Your task to perform on an android device: delete browsing data in the chrome app Image 0: 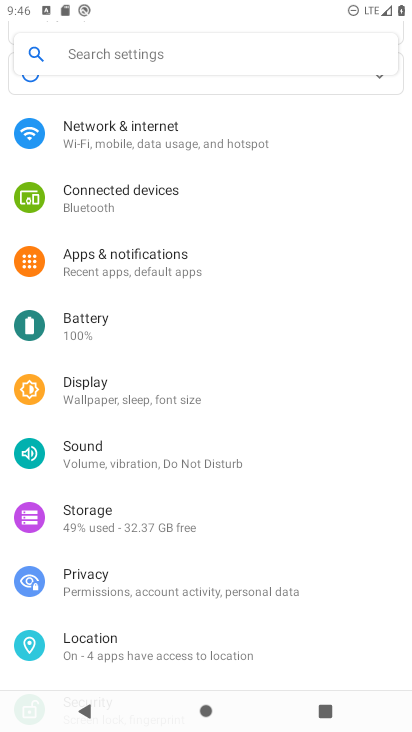
Step 0: press home button
Your task to perform on an android device: delete browsing data in the chrome app Image 1: 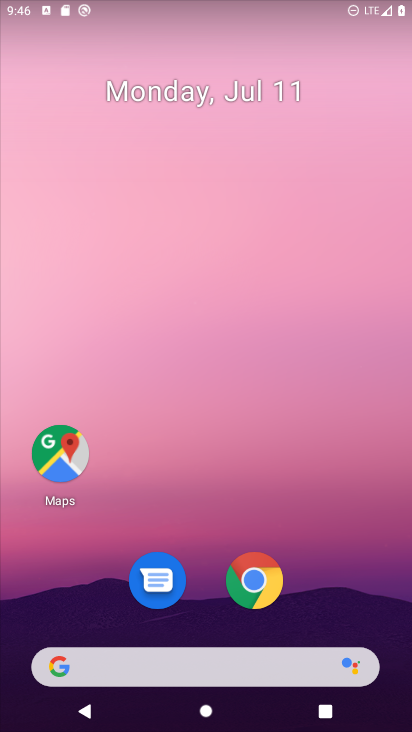
Step 1: click (261, 588)
Your task to perform on an android device: delete browsing data in the chrome app Image 2: 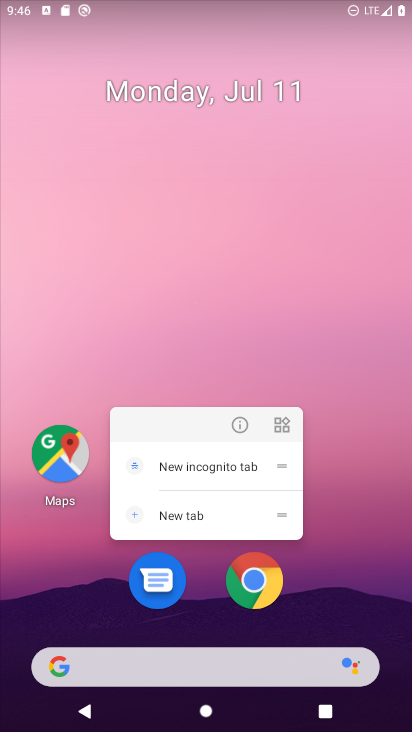
Step 2: click (259, 573)
Your task to perform on an android device: delete browsing data in the chrome app Image 3: 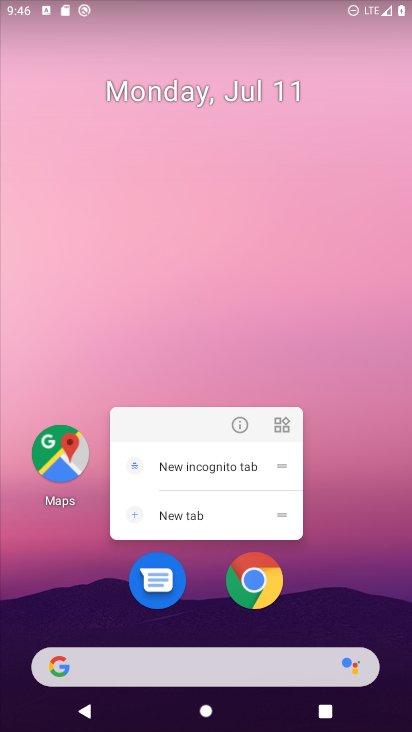
Step 3: click (259, 573)
Your task to perform on an android device: delete browsing data in the chrome app Image 4: 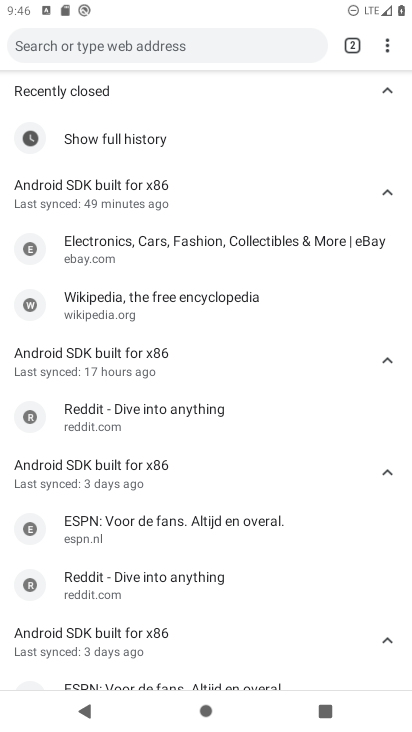
Step 4: click (387, 44)
Your task to perform on an android device: delete browsing data in the chrome app Image 5: 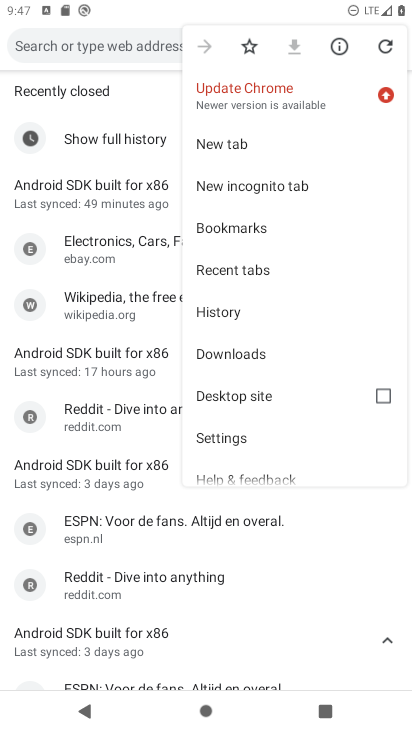
Step 5: click (226, 305)
Your task to perform on an android device: delete browsing data in the chrome app Image 6: 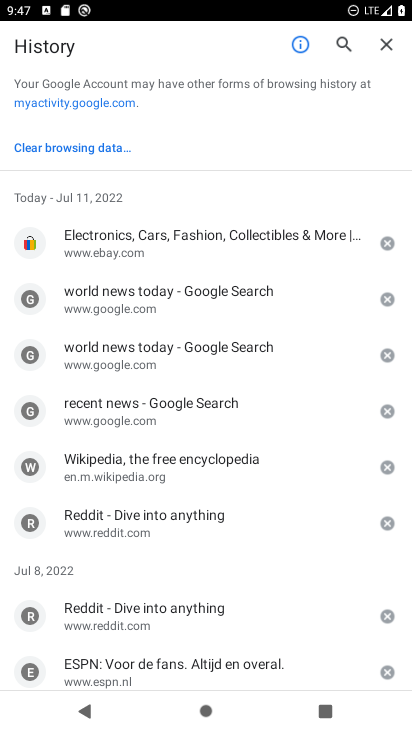
Step 6: click (103, 142)
Your task to perform on an android device: delete browsing data in the chrome app Image 7: 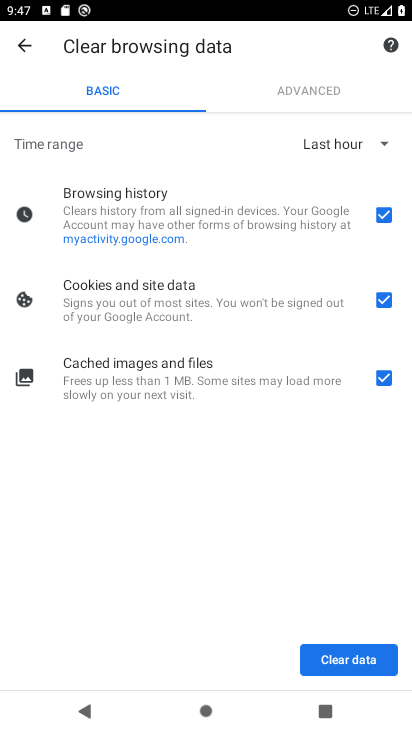
Step 7: click (335, 656)
Your task to perform on an android device: delete browsing data in the chrome app Image 8: 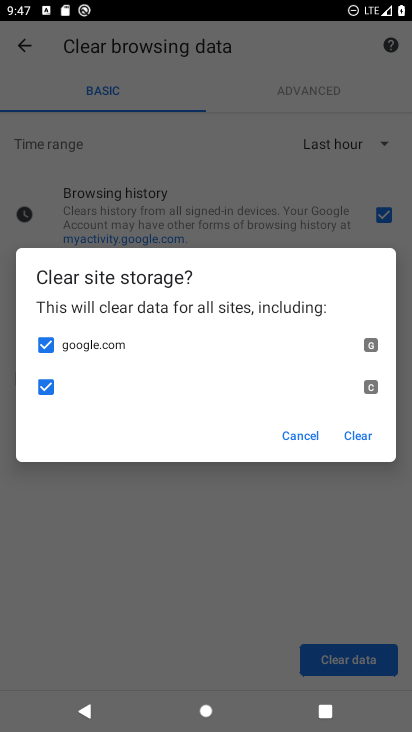
Step 8: click (365, 432)
Your task to perform on an android device: delete browsing data in the chrome app Image 9: 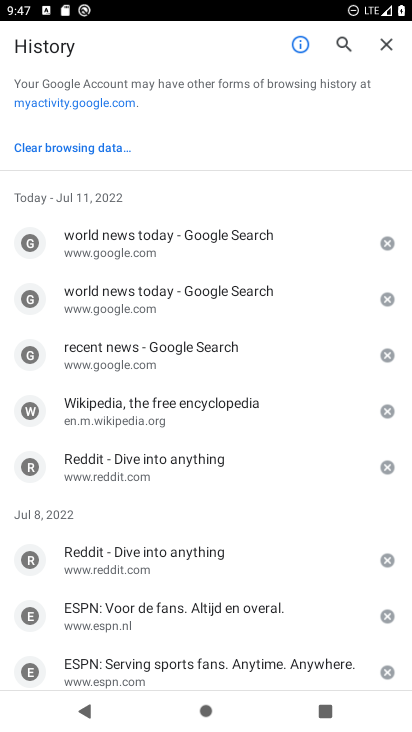
Step 9: click (93, 147)
Your task to perform on an android device: delete browsing data in the chrome app Image 10: 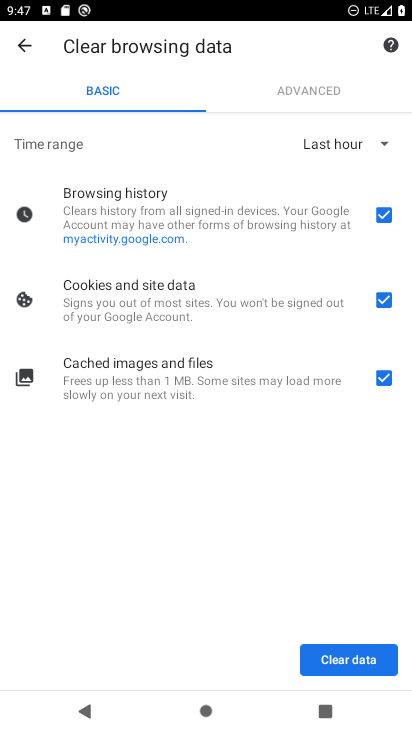
Step 10: click (387, 140)
Your task to perform on an android device: delete browsing data in the chrome app Image 11: 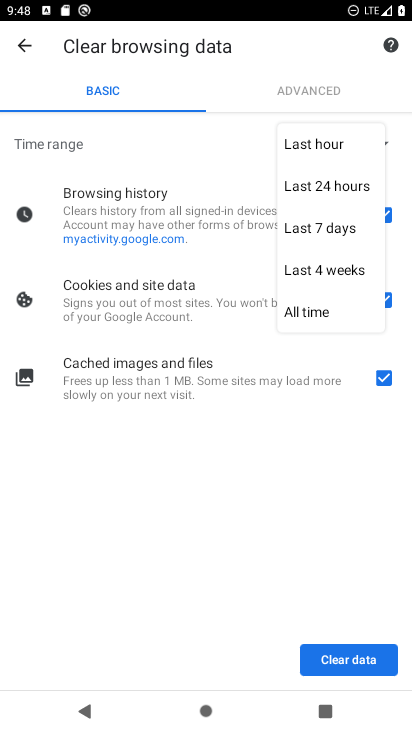
Step 11: click (336, 181)
Your task to perform on an android device: delete browsing data in the chrome app Image 12: 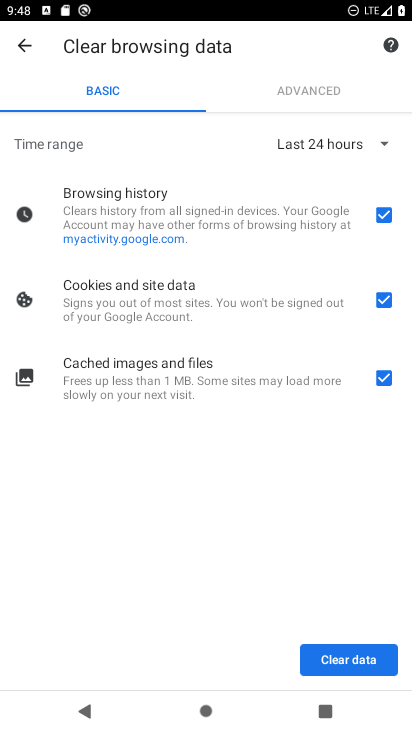
Step 12: click (354, 662)
Your task to perform on an android device: delete browsing data in the chrome app Image 13: 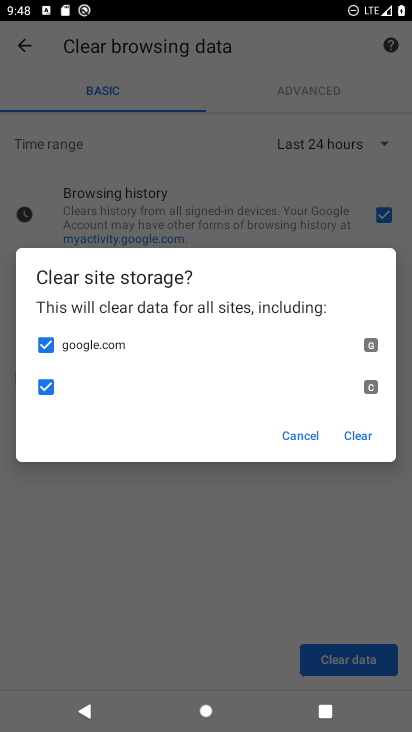
Step 13: click (361, 428)
Your task to perform on an android device: delete browsing data in the chrome app Image 14: 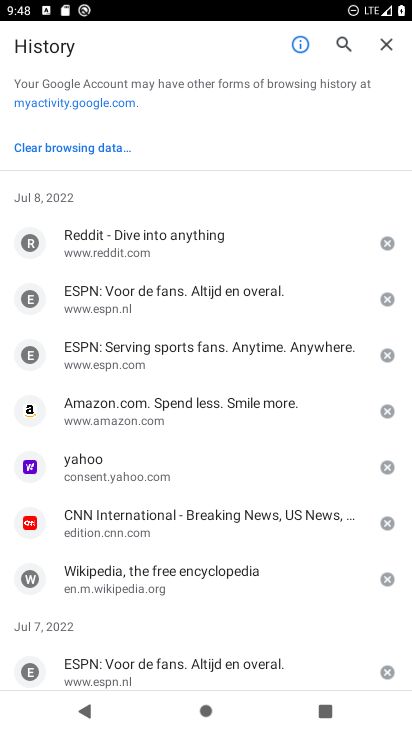
Step 14: task complete